Your task to perform on an android device: set default search engine in the chrome app Image 0: 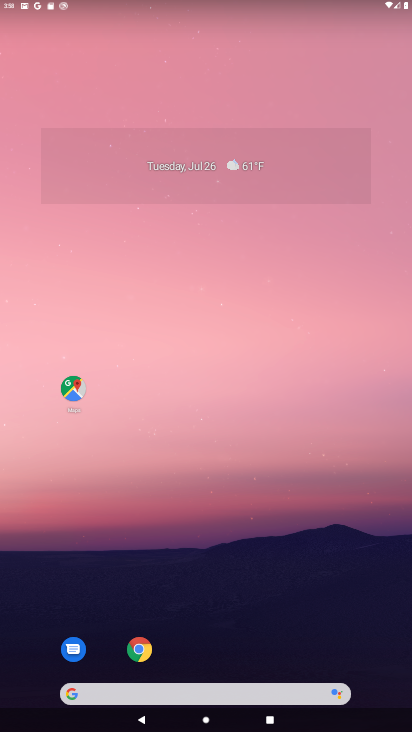
Step 0: drag from (283, 566) to (329, 301)
Your task to perform on an android device: set default search engine in the chrome app Image 1: 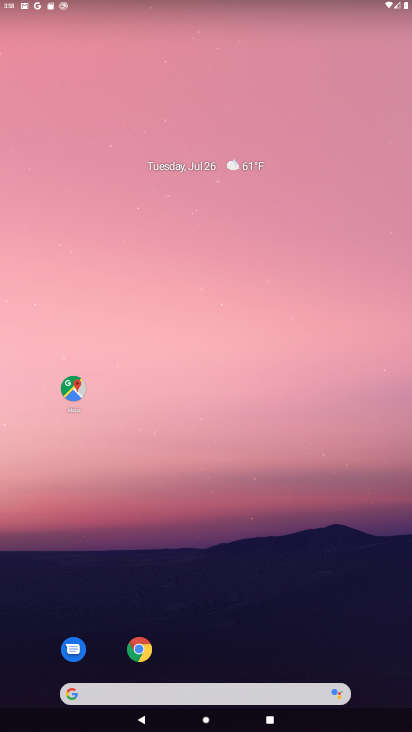
Step 1: click (137, 653)
Your task to perform on an android device: set default search engine in the chrome app Image 2: 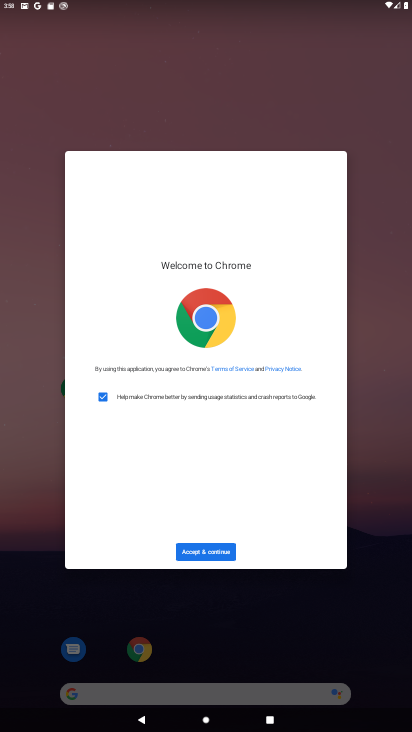
Step 2: click (194, 553)
Your task to perform on an android device: set default search engine in the chrome app Image 3: 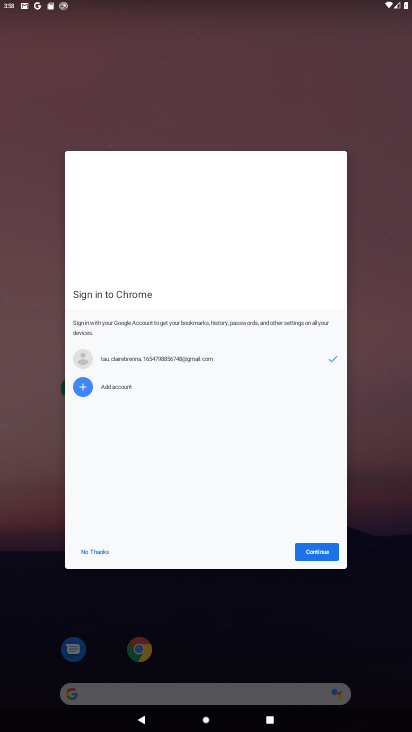
Step 3: click (305, 551)
Your task to perform on an android device: set default search engine in the chrome app Image 4: 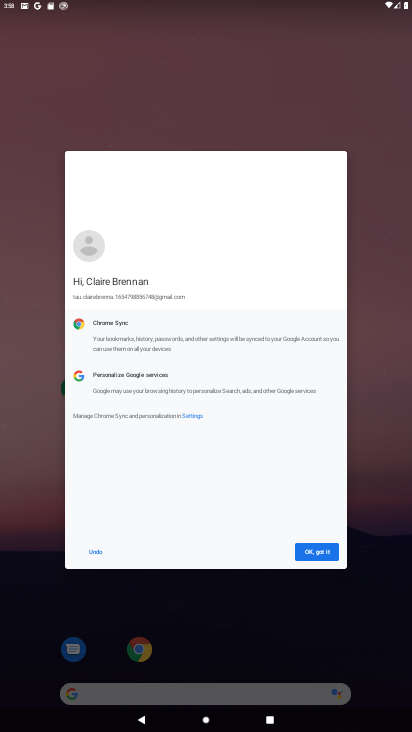
Step 4: click (311, 557)
Your task to perform on an android device: set default search engine in the chrome app Image 5: 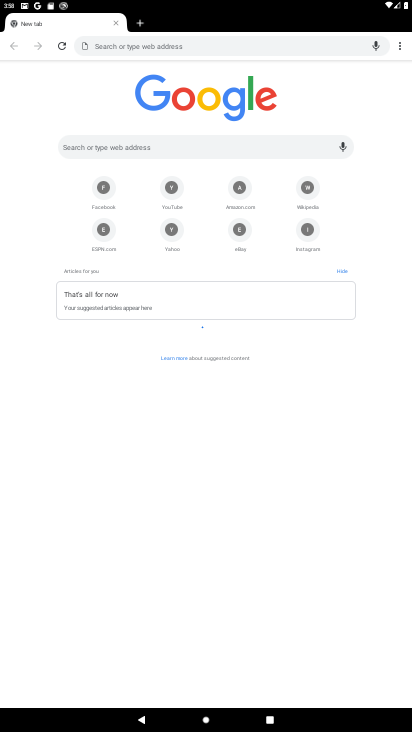
Step 5: task complete